Your task to perform on an android device: Go to sound settings Image 0: 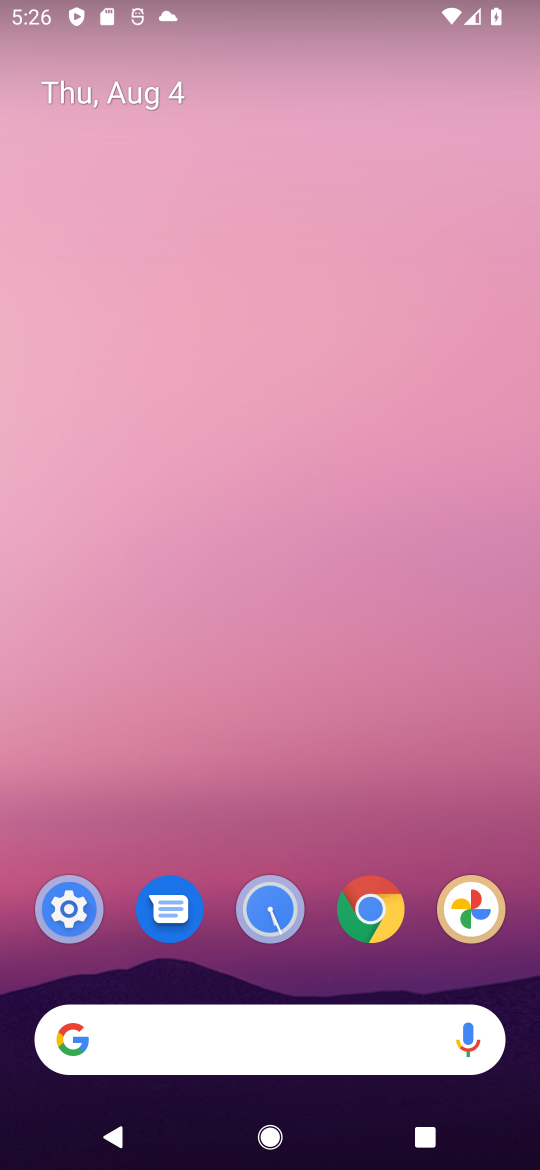
Step 0: drag from (282, 1052) to (339, 82)
Your task to perform on an android device: Go to sound settings Image 1: 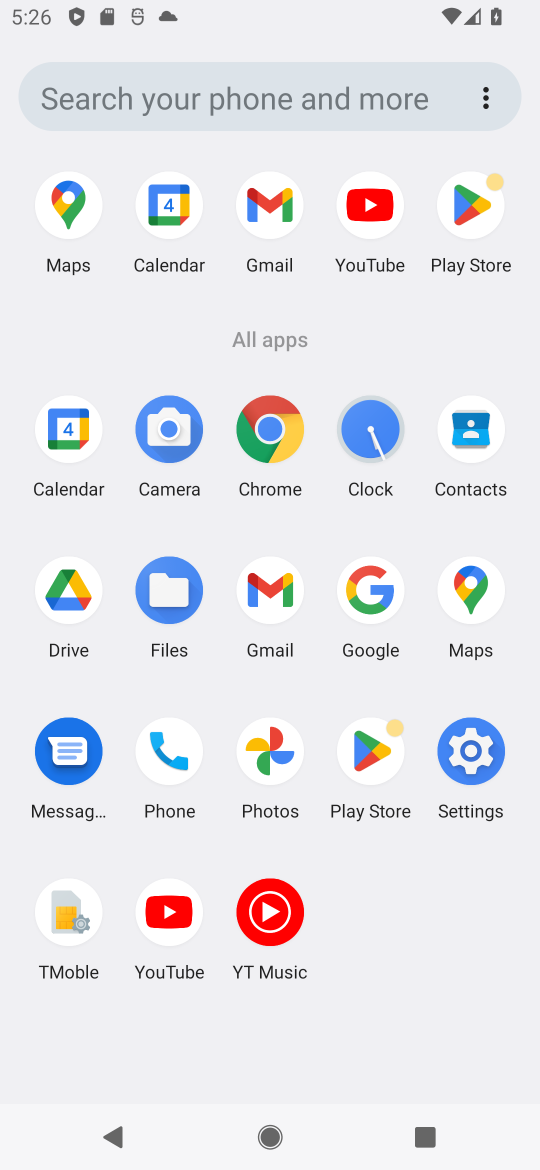
Step 1: click (472, 751)
Your task to perform on an android device: Go to sound settings Image 2: 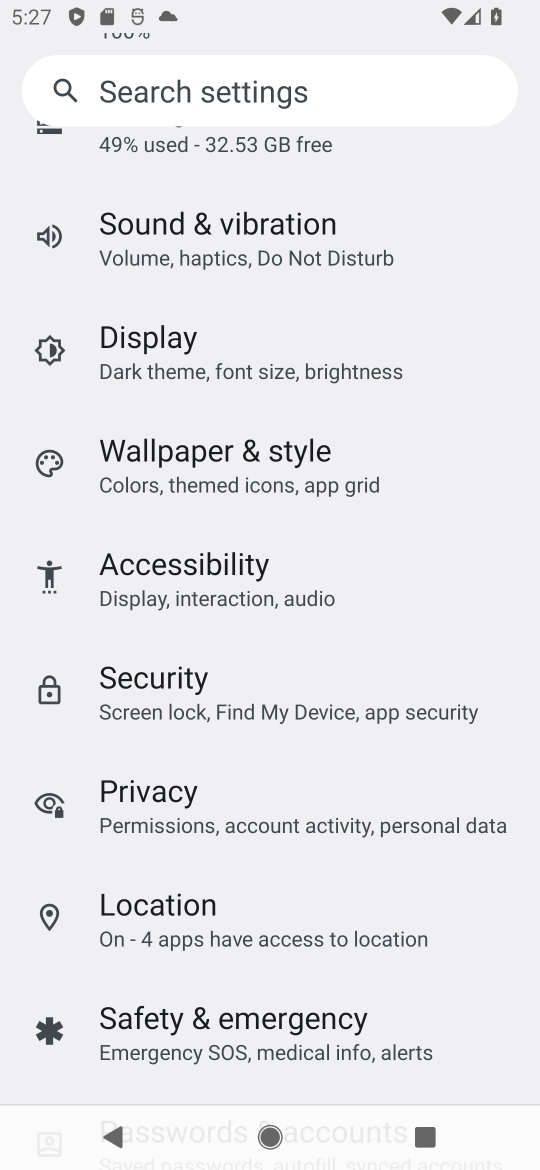
Step 2: click (257, 259)
Your task to perform on an android device: Go to sound settings Image 3: 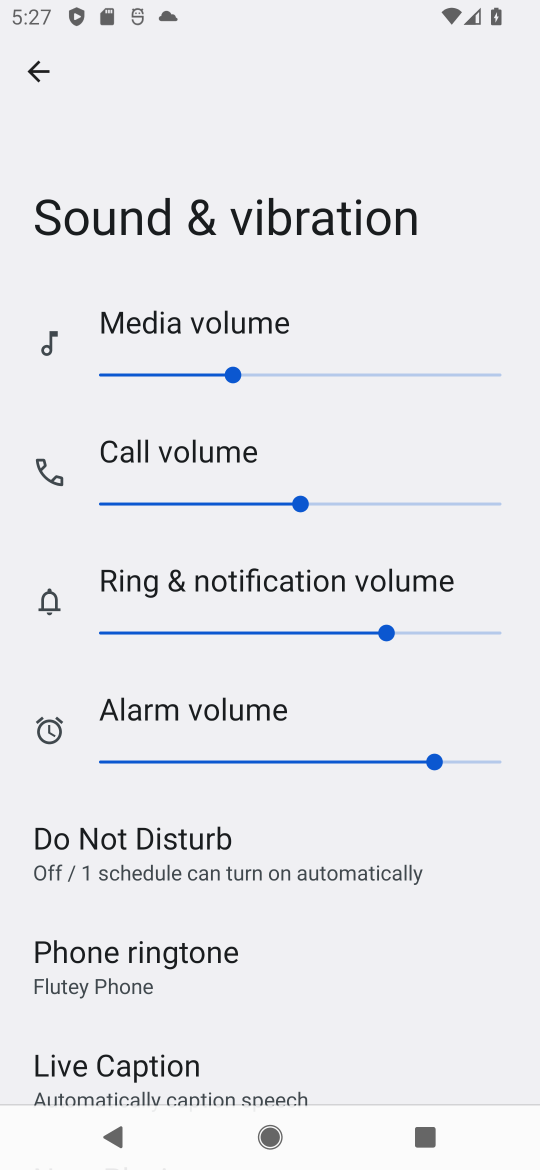
Step 3: task complete